Your task to perform on an android device: add a contact Image 0: 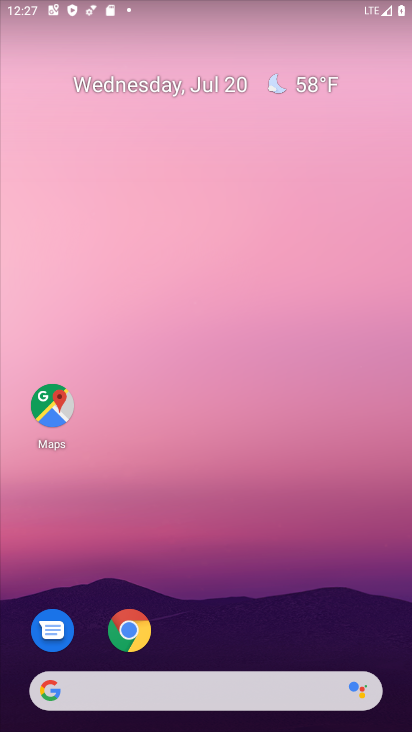
Step 0: drag from (198, 647) to (147, 252)
Your task to perform on an android device: add a contact Image 1: 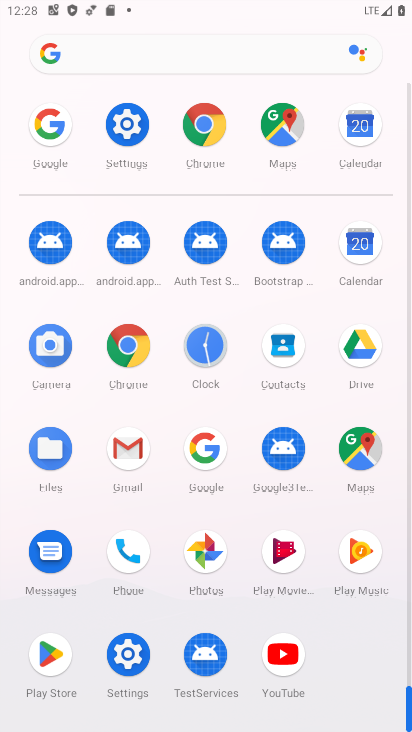
Step 1: click (280, 353)
Your task to perform on an android device: add a contact Image 2: 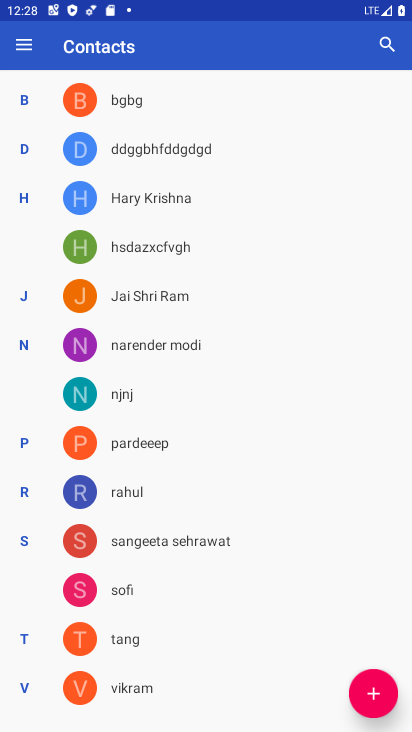
Step 2: click (378, 701)
Your task to perform on an android device: add a contact Image 3: 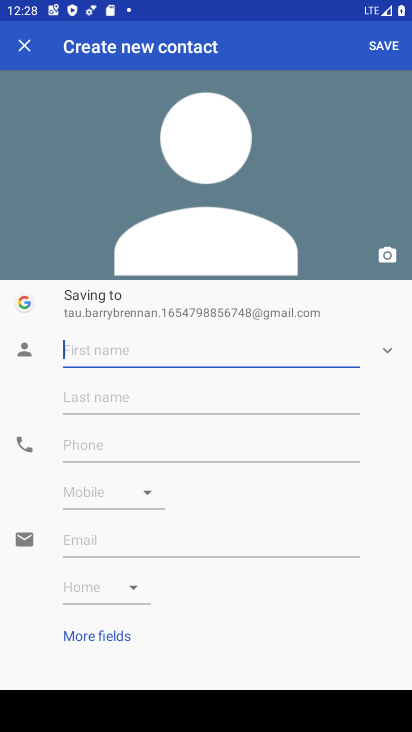
Step 3: type "cxxxxxxxxdcxcdxx"
Your task to perform on an android device: add a contact Image 4: 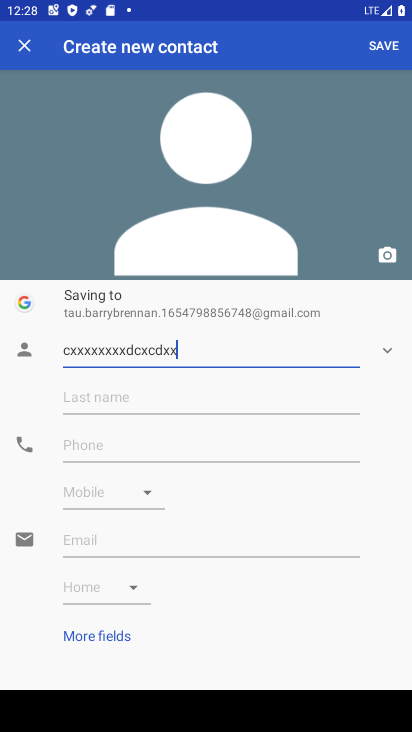
Step 4: type ""
Your task to perform on an android device: add a contact Image 5: 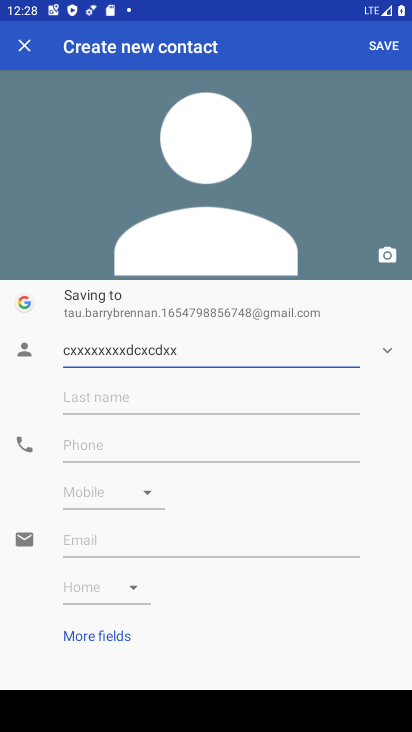
Step 5: click (153, 453)
Your task to perform on an android device: add a contact Image 6: 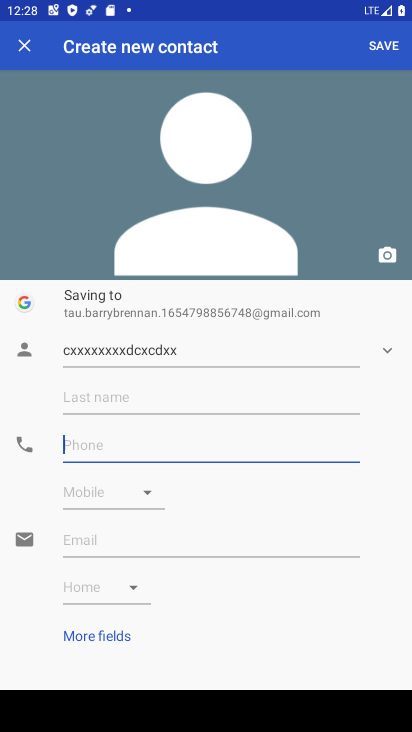
Step 6: type "5555555655555"
Your task to perform on an android device: add a contact Image 7: 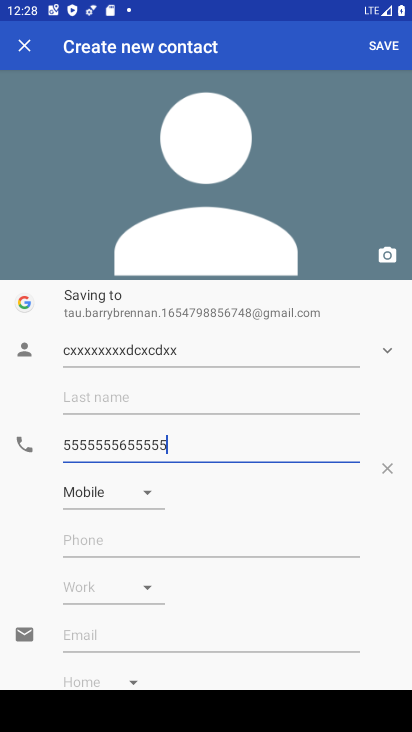
Step 7: type ""
Your task to perform on an android device: add a contact Image 8: 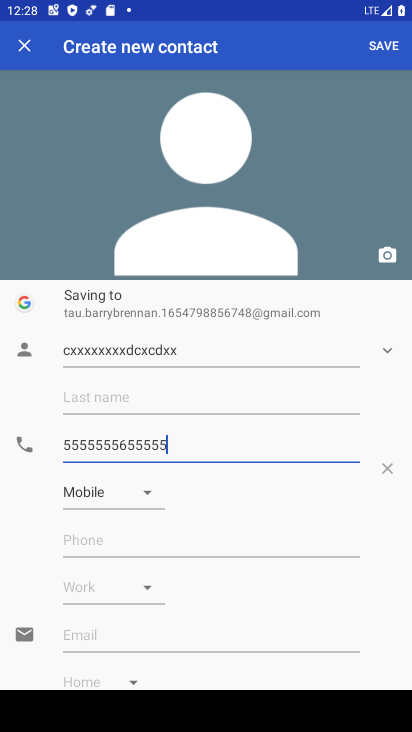
Step 8: click (384, 48)
Your task to perform on an android device: add a contact Image 9: 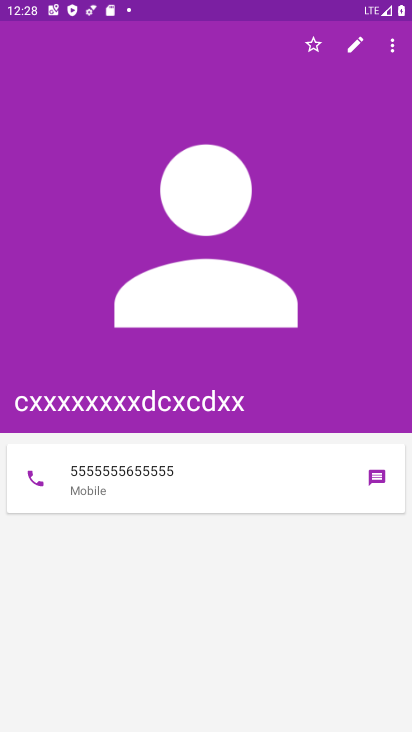
Step 9: task complete